Your task to perform on an android device: change alarm snooze length Image 0: 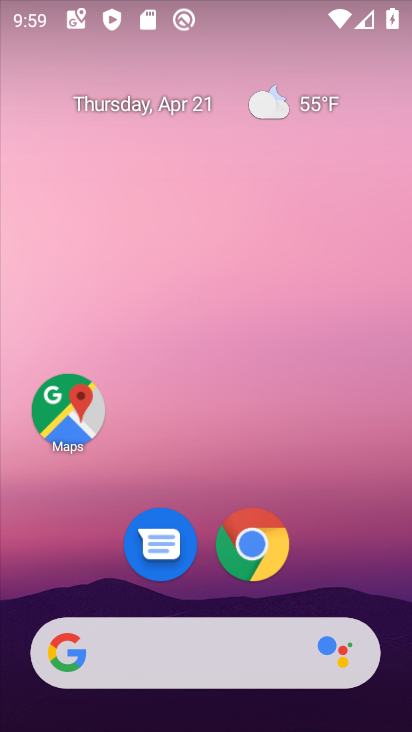
Step 0: drag from (343, 555) to (279, 6)
Your task to perform on an android device: change alarm snooze length Image 1: 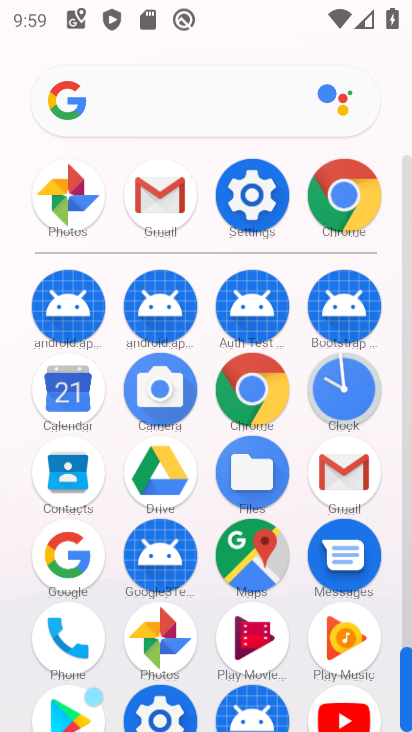
Step 1: drag from (13, 531) to (10, 218)
Your task to perform on an android device: change alarm snooze length Image 2: 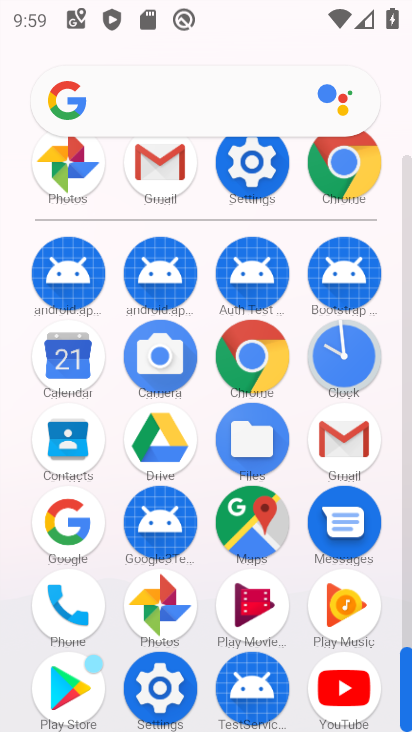
Step 2: click (343, 352)
Your task to perform on an android device: change alarm snooze length Image 3: 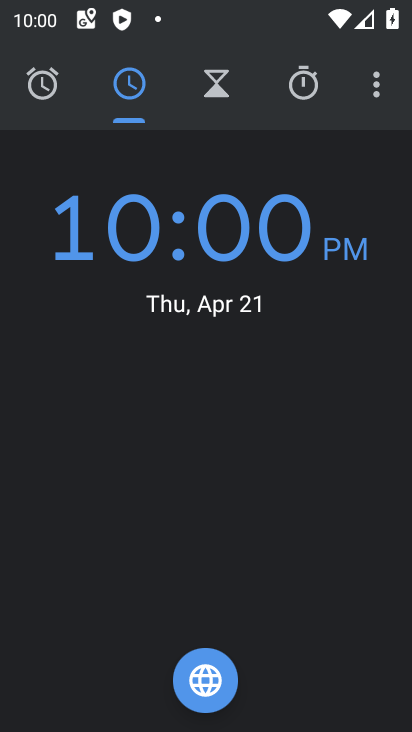
Step 3: drag from (375, 93) to (348, 184)
Your task to perform on an android device: change alarm snooze length Image 4: 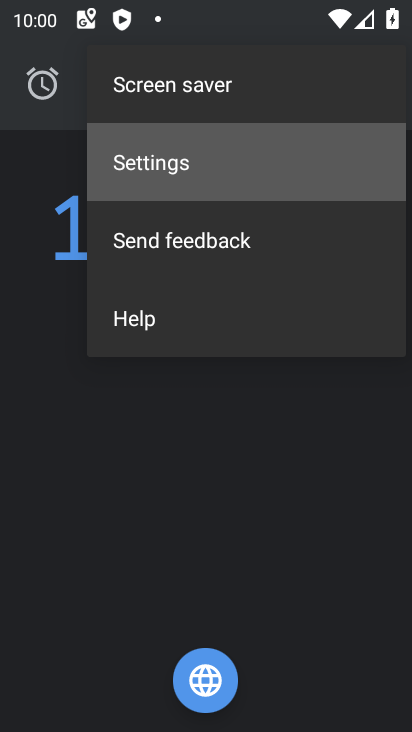
Step 4: click (372, 88)
Your task to perform on an android device: change alarm snooze length Image 5: 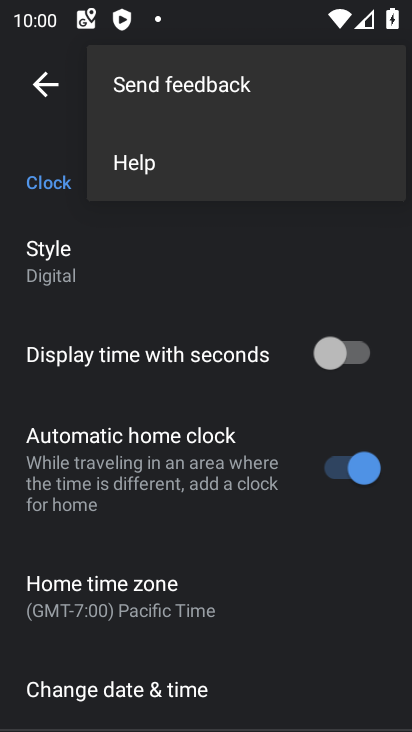
Step 5: drag from (132, 516) to (137, 244)
Your task to perform on an android device: change alarm snooze length Image 6: 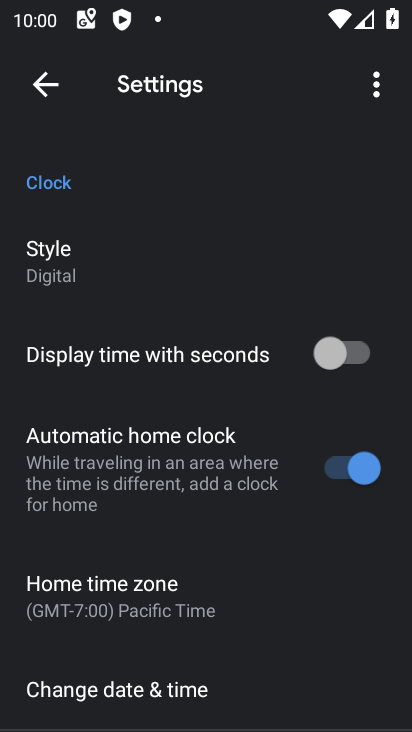
Step 6: drag from (171, 557) to (163, 245)
Your task to perform on an android device: change alarm snooze length Image 7: 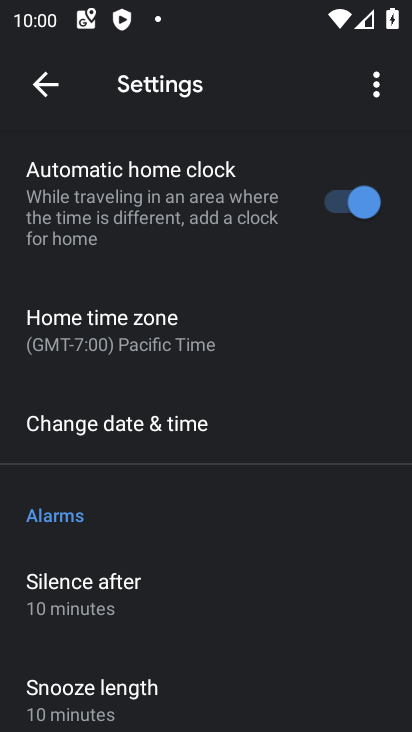
Step 7: drag from (209, 561) to (182, 212)
Your task to perform on an android device: change alarm snooze length Image 8: 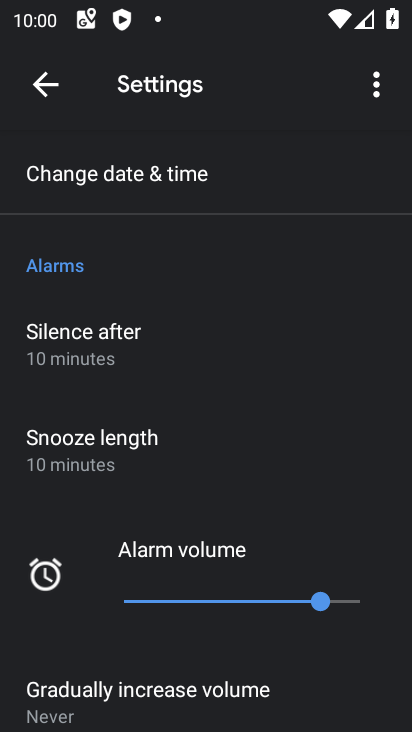
Step 8: click (117, 427)
Your task to perform on an android device: change alarm snooze length Image 9: 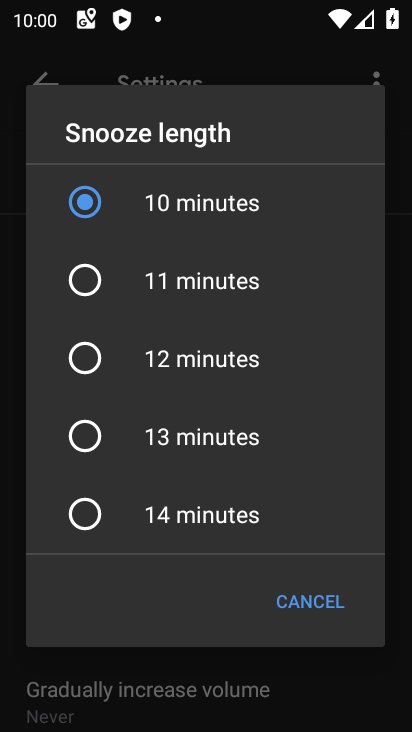
Step 9: click (133, 287)
Your task to perform on an android device: change alarm snooze length Image 10: 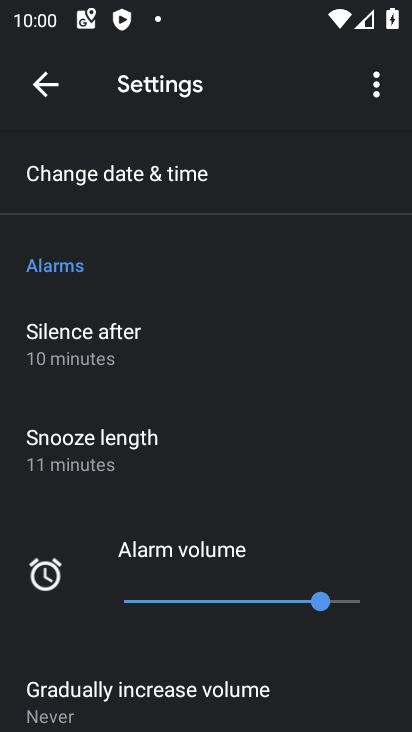
Step 10: task complete